Your task to perform on an android device: turn notification dots off Image 0: 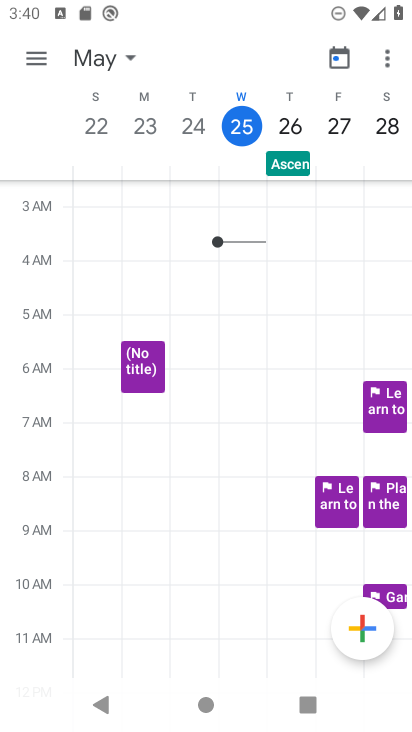
Step 0: press home button
Your task to perform on an android device: turn notification dots off Image 1: 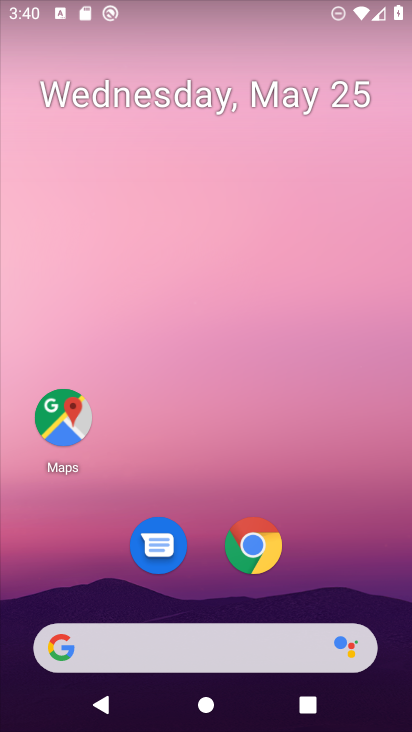
Step 1: drag from (328, 567) to (314, 4)
Your task to perform on an android device: turn notification dots off Image 2: 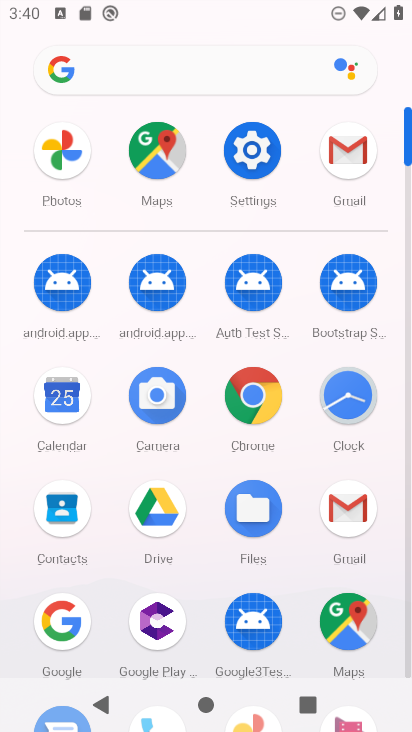
Step 2: click (247, 129)
Your task to perform on an android device: turn notification dots off Image 3: 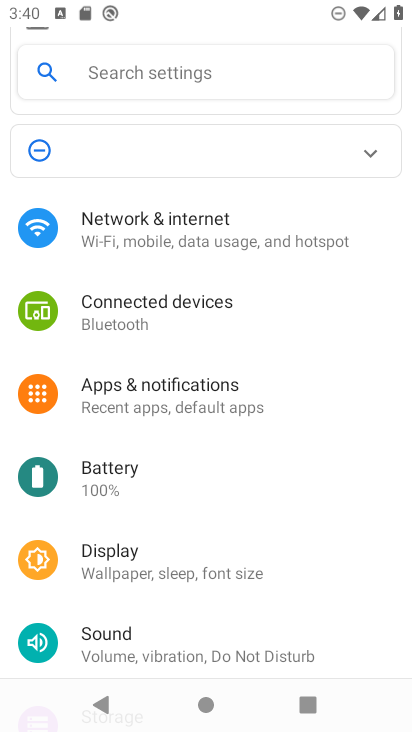
Step 3: click (189, 406)
Your task to perform on an android device: turn notification dots off Image 4: 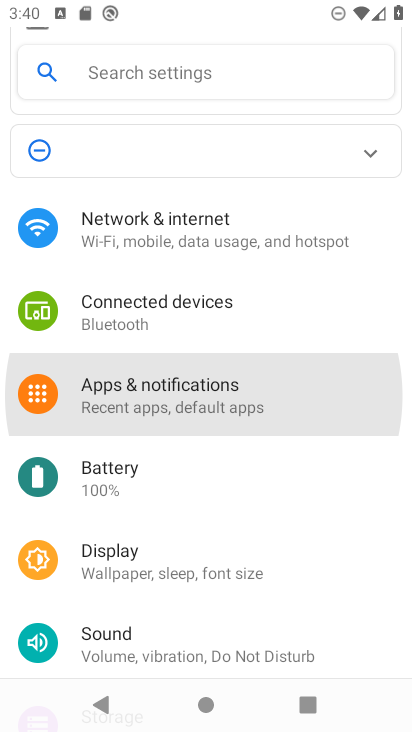
Step 4: click (189, 406)
Your task to perform on an android device: turn notification dots off Image 5: 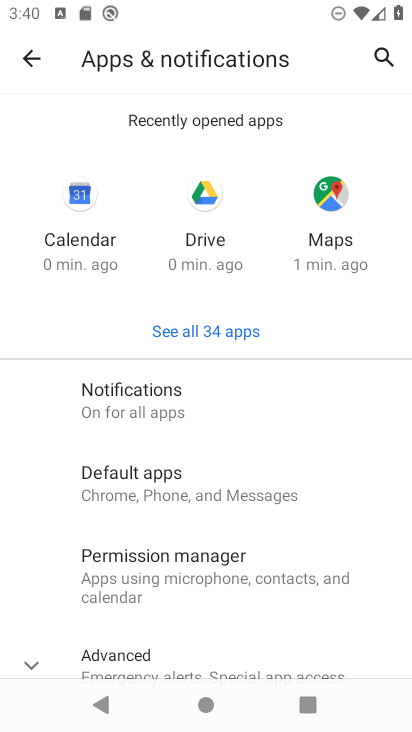
Step 5: drag from (198, 523) to (218, 277)
Your task to perform on an android device: turn notification dots off Image 6: 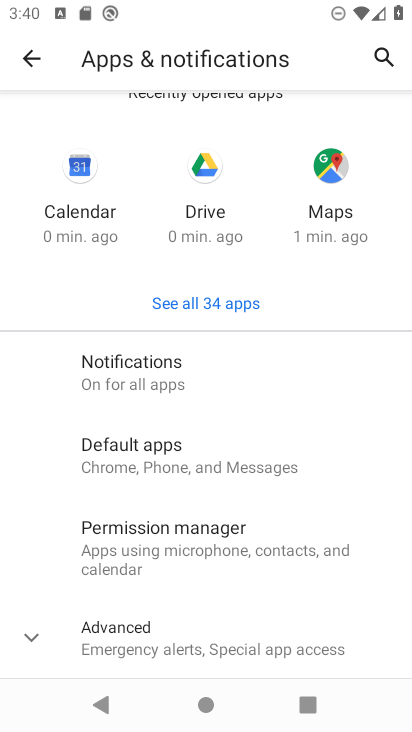
Step 6: click (161, 361)
Your task to perform on an android device: turn notification dots off Image 7: 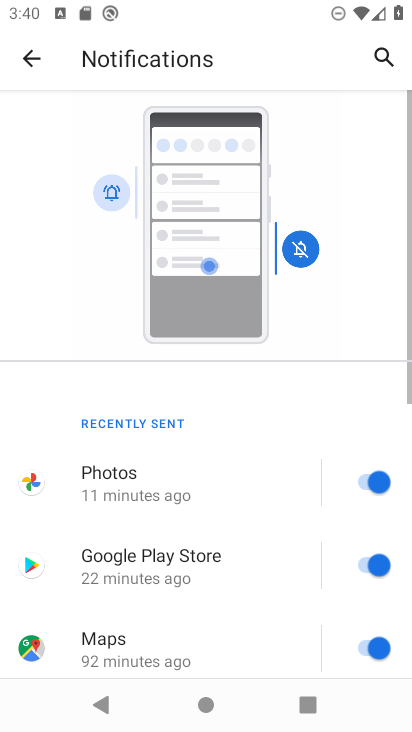
Step 7: drag from (183, 598) to (220, 208)
Your task to perform on an android device: turn notification dots off Image 8: 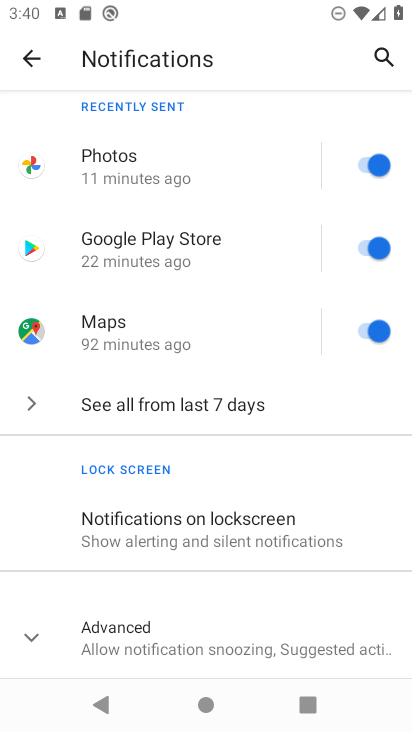
Step 8: click (177, 630)
Your task to perform on an android device: turn notification dots off Image 9: 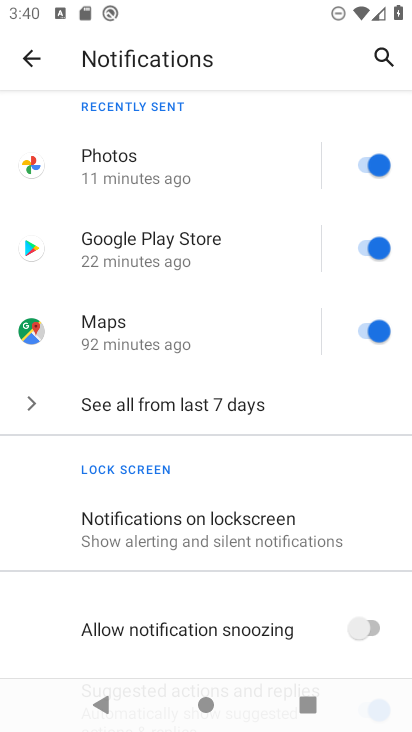
Step 9: drag from (177, 630) to (214, 378)
Your task to perform on an android device: turn notification dots off Image 10: 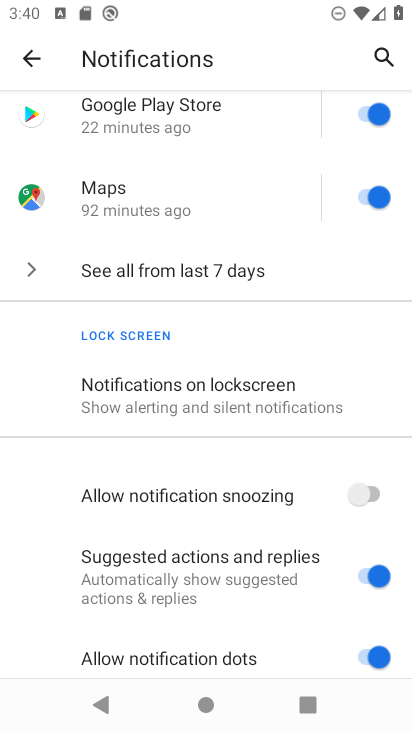
Step 10: drag from (129, 602) to (166, 475)
Your task to perform on an android device: turn notification dots off Image 11: 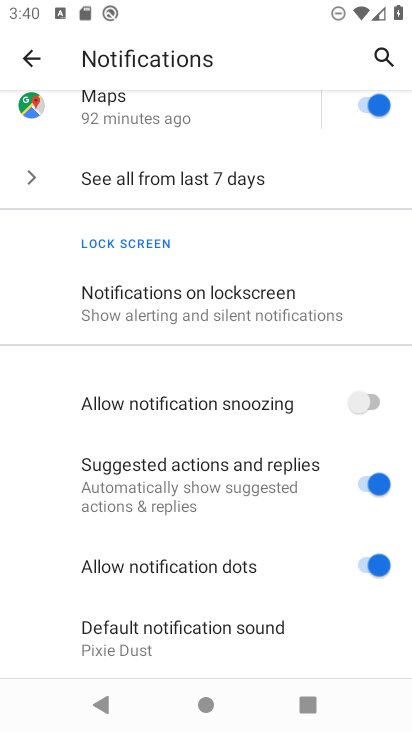
Step 11: click (328, 574)
Your task to perform on an android device: turn notification dots off Image 12: 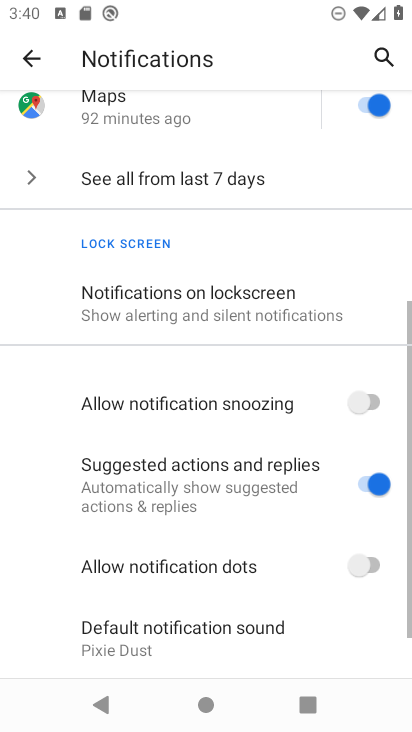
Step 12: task complete